Your task to perform on an android device: Go to notification settings Image 0: 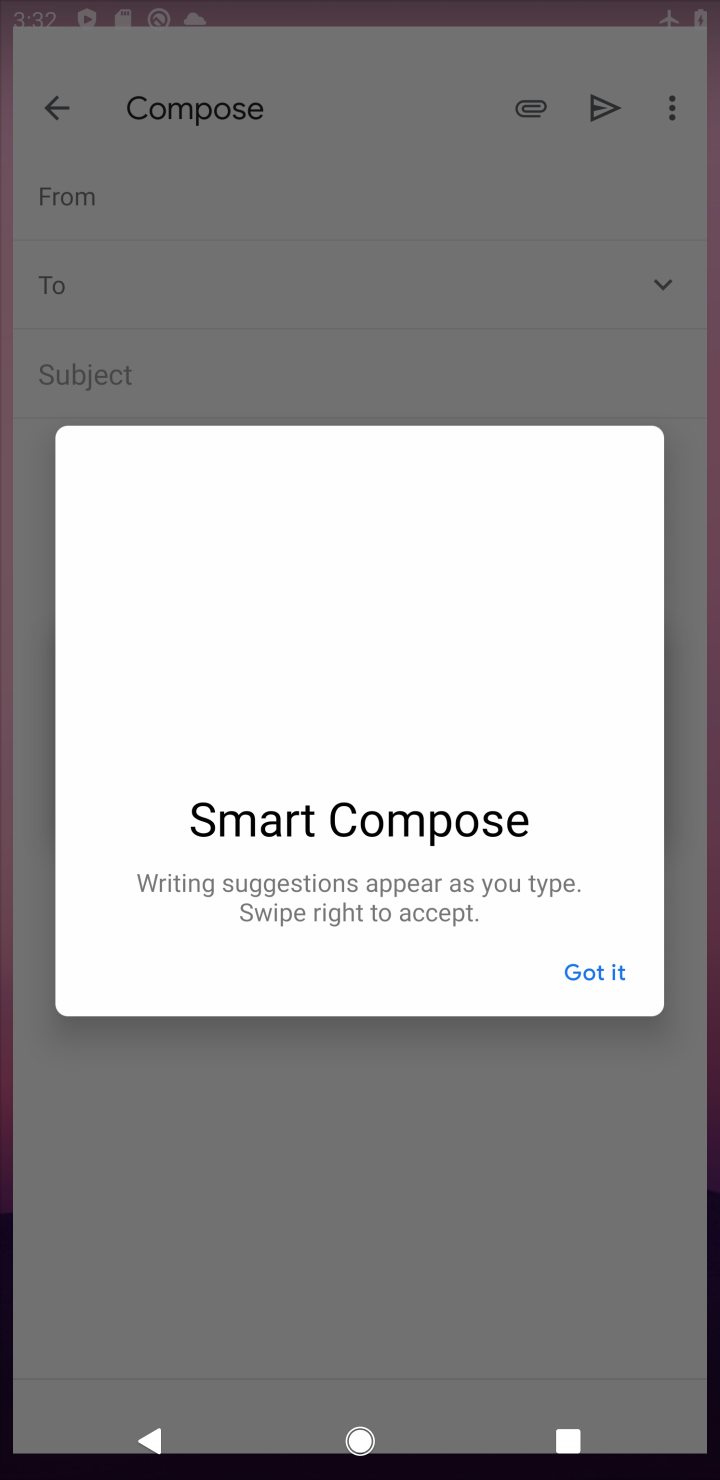
Step 0: press back button
Your task to perform on an android device: Go to notification settings Image 1: 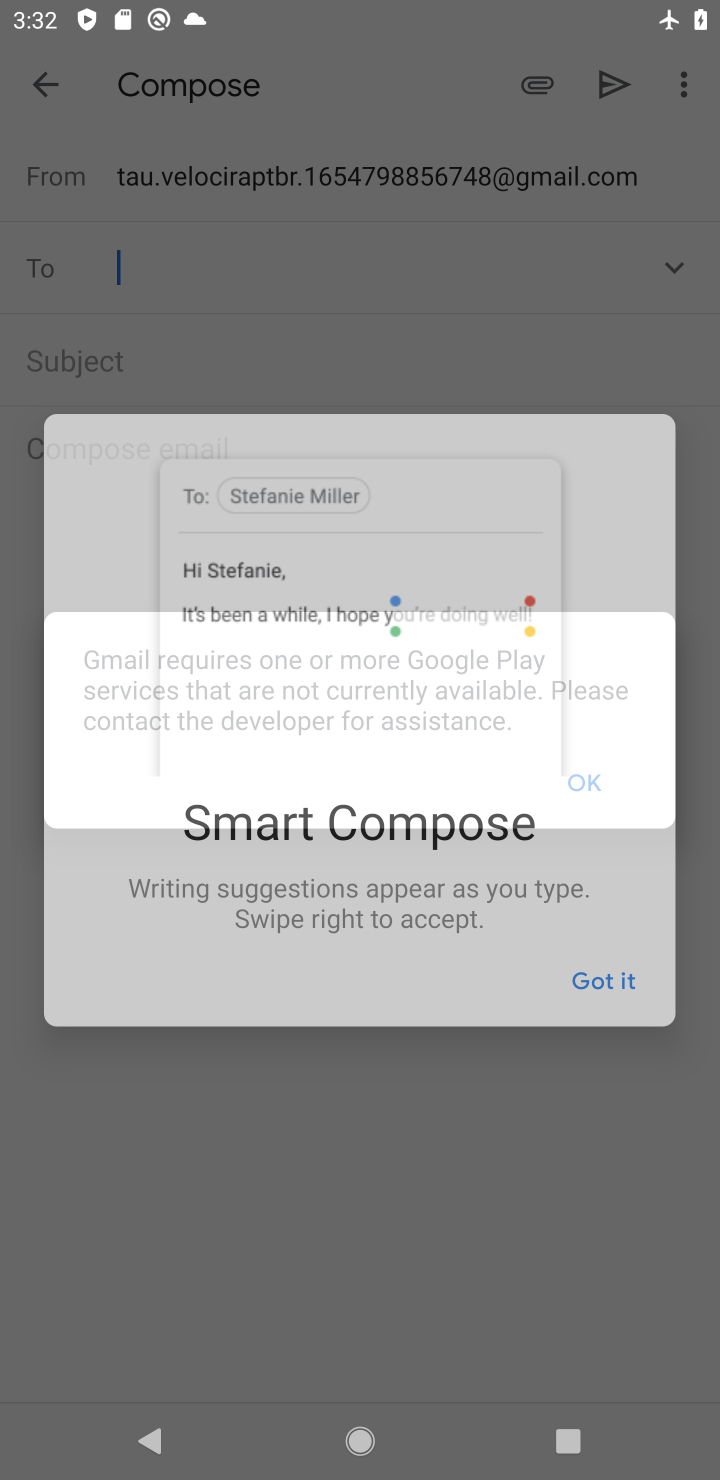
Step 1: press home button
Your task to perform on an android device: Go to notification settings Image 2: 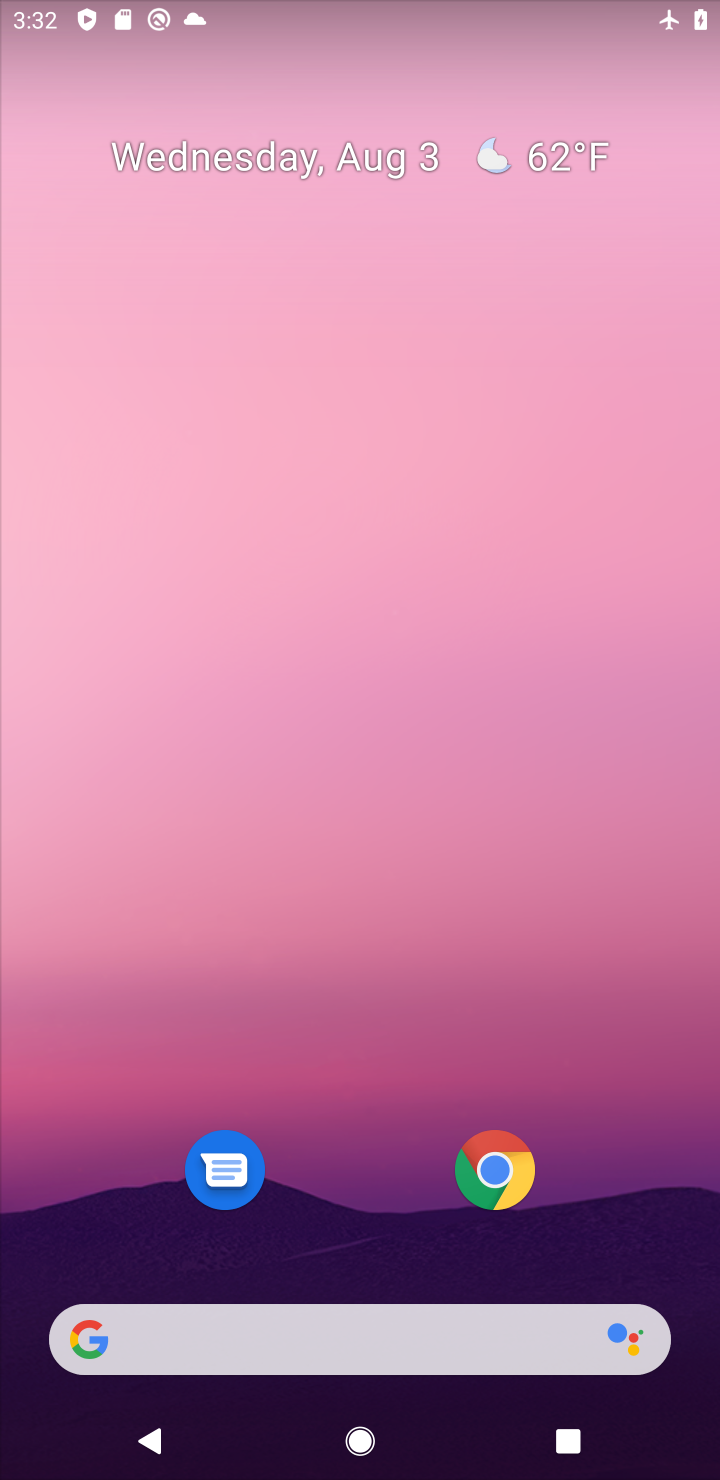
Step 2: click (376, 230)
Your task to perform on an android device: Go to notification settings Image 3: 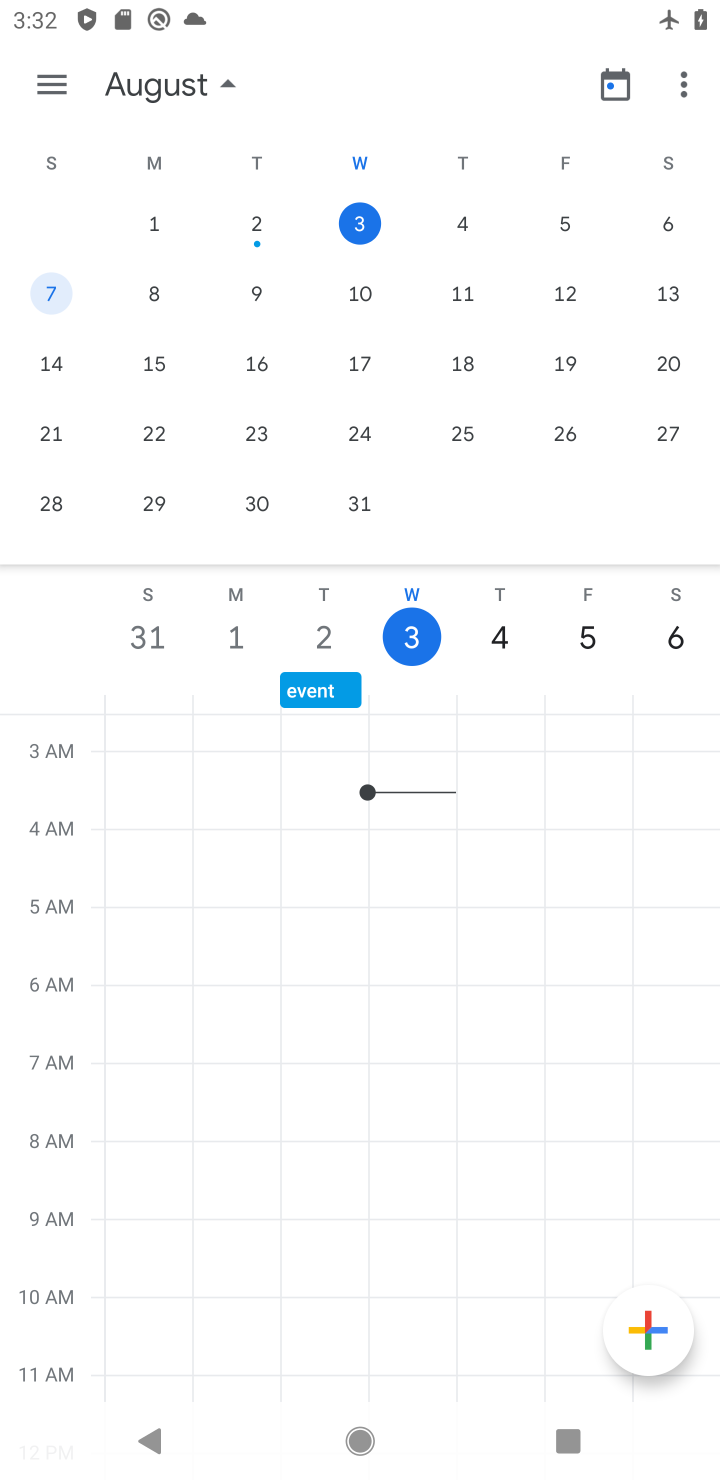
Step 3: press back button
Your task to perform on an android device: Go to notification settings Image 4: 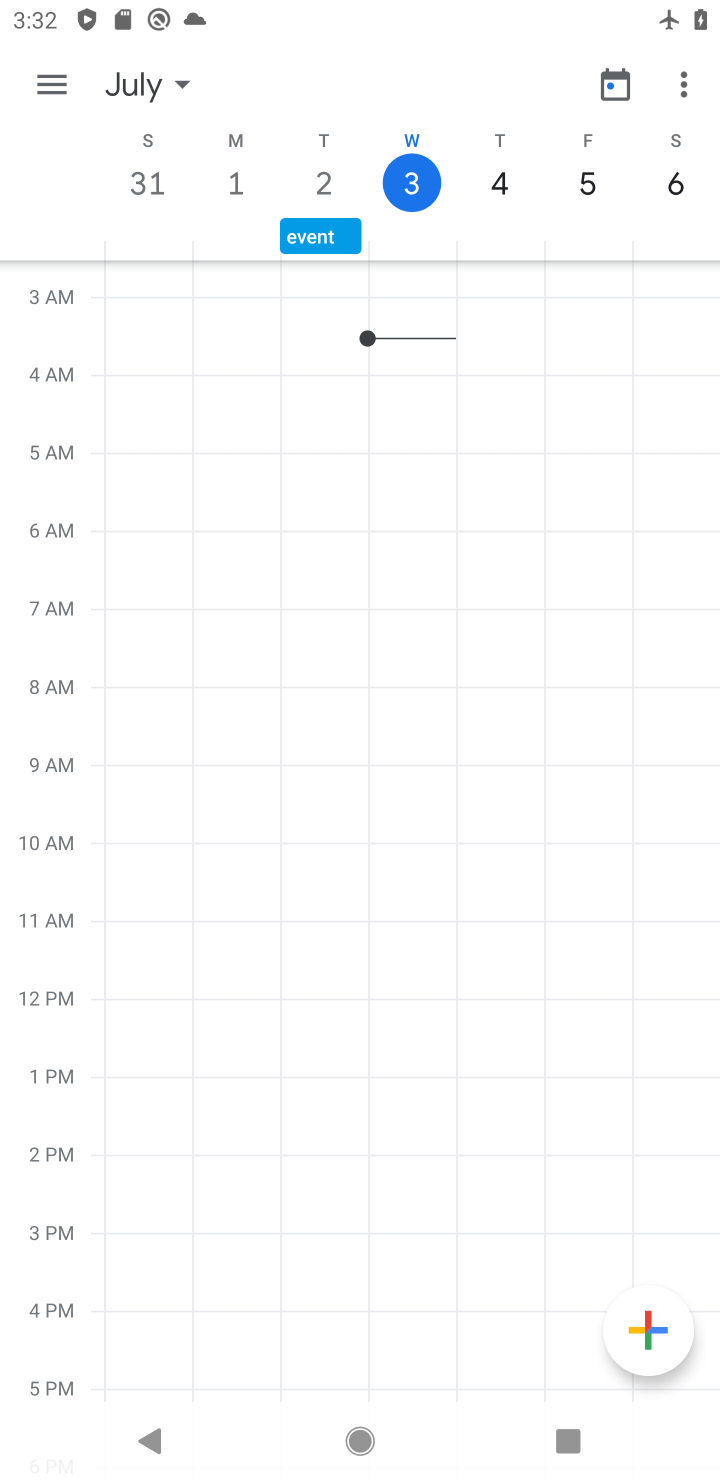
Step 4: press back button
Your task to perform on an android device: Go to notification settings Image 5: 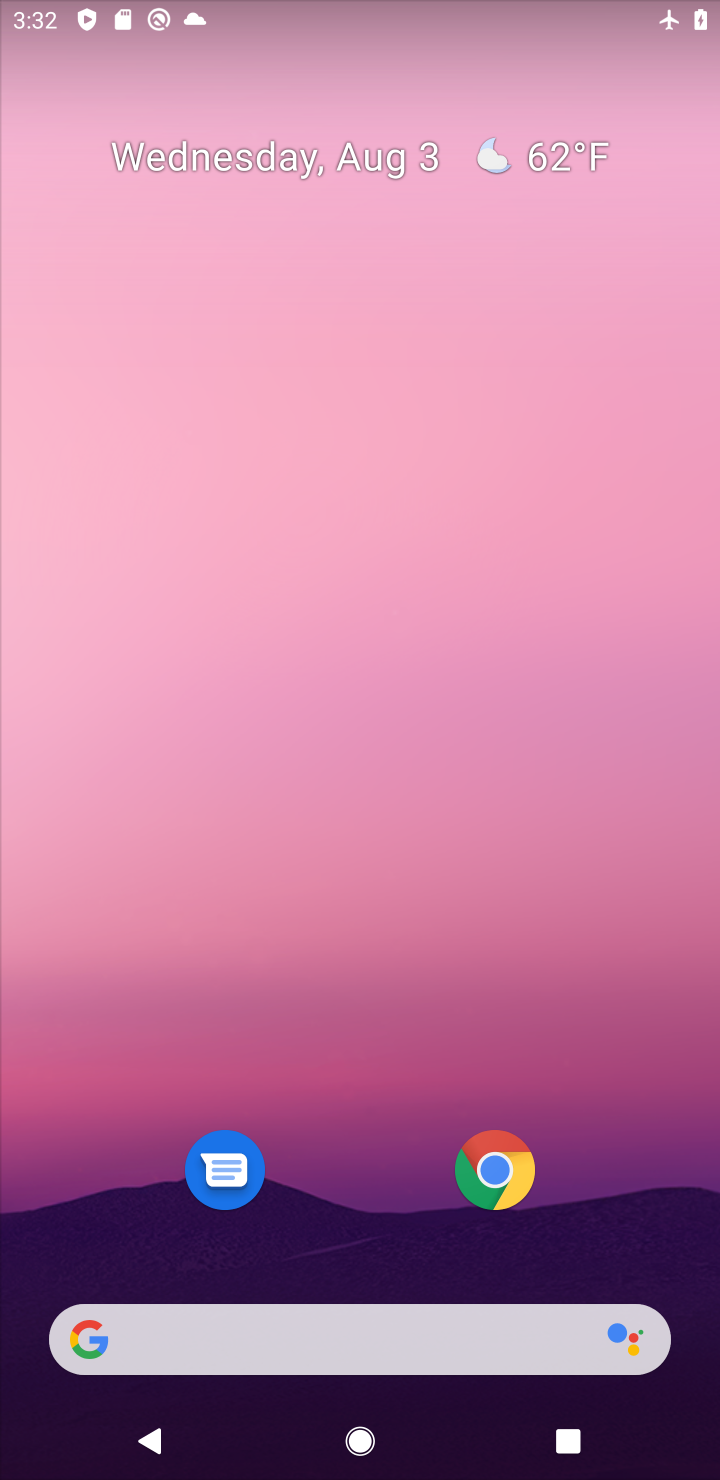
Step 5: drag from (334, 1132) to (287, 340)
Your task to perform on an android device: Go to notification settings Image 6: 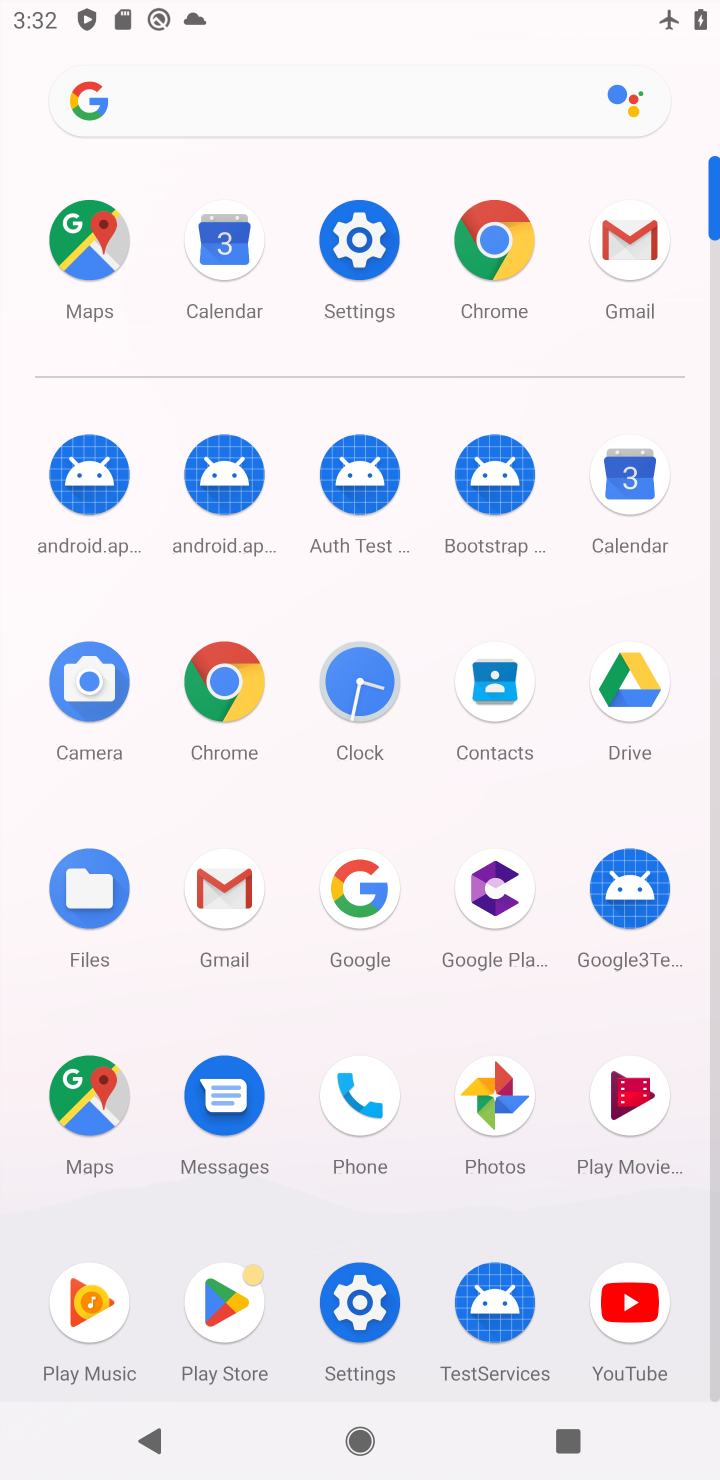
Step 6: click (364, 252)
Your task to perform on an android device: Go to notification settings Image 7: 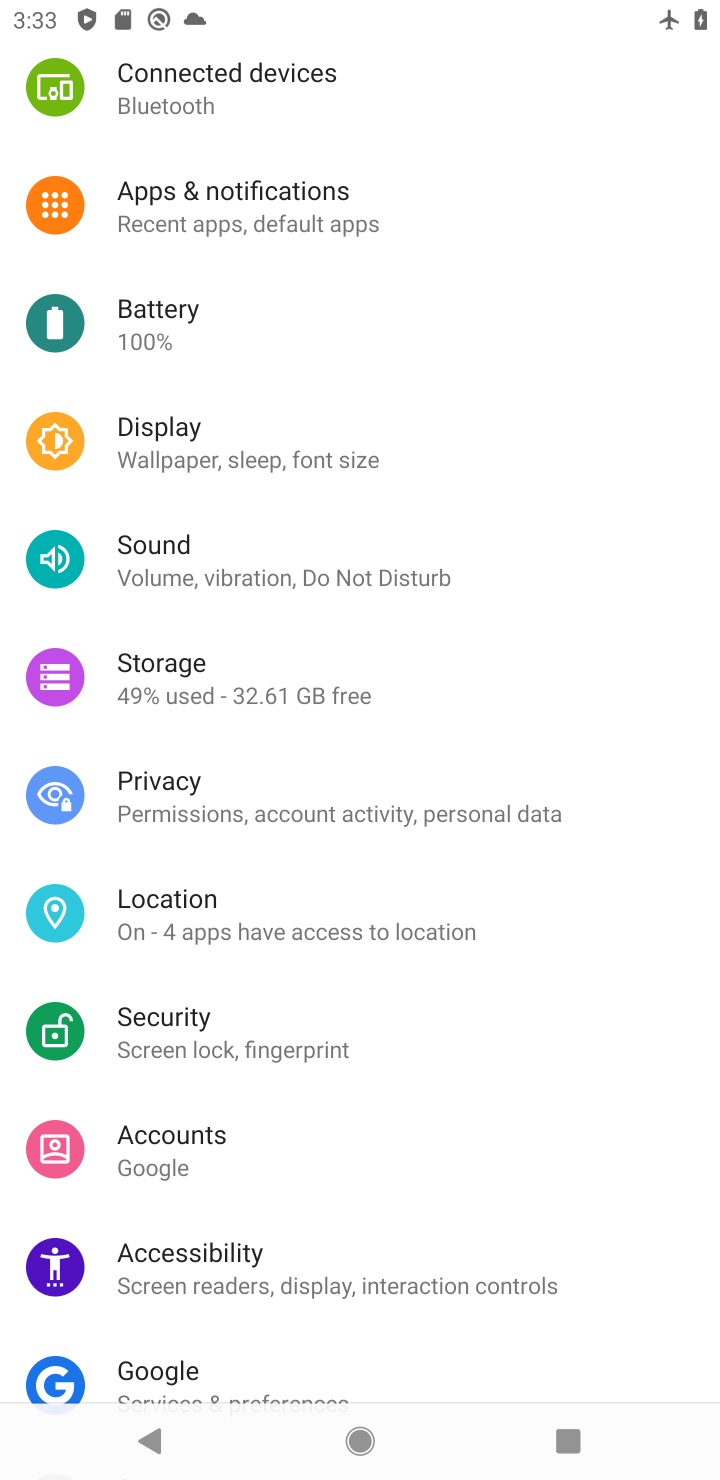
Step 7: click (291, 233)
Your task to perform on an android device: Go to notification settings Image 8: 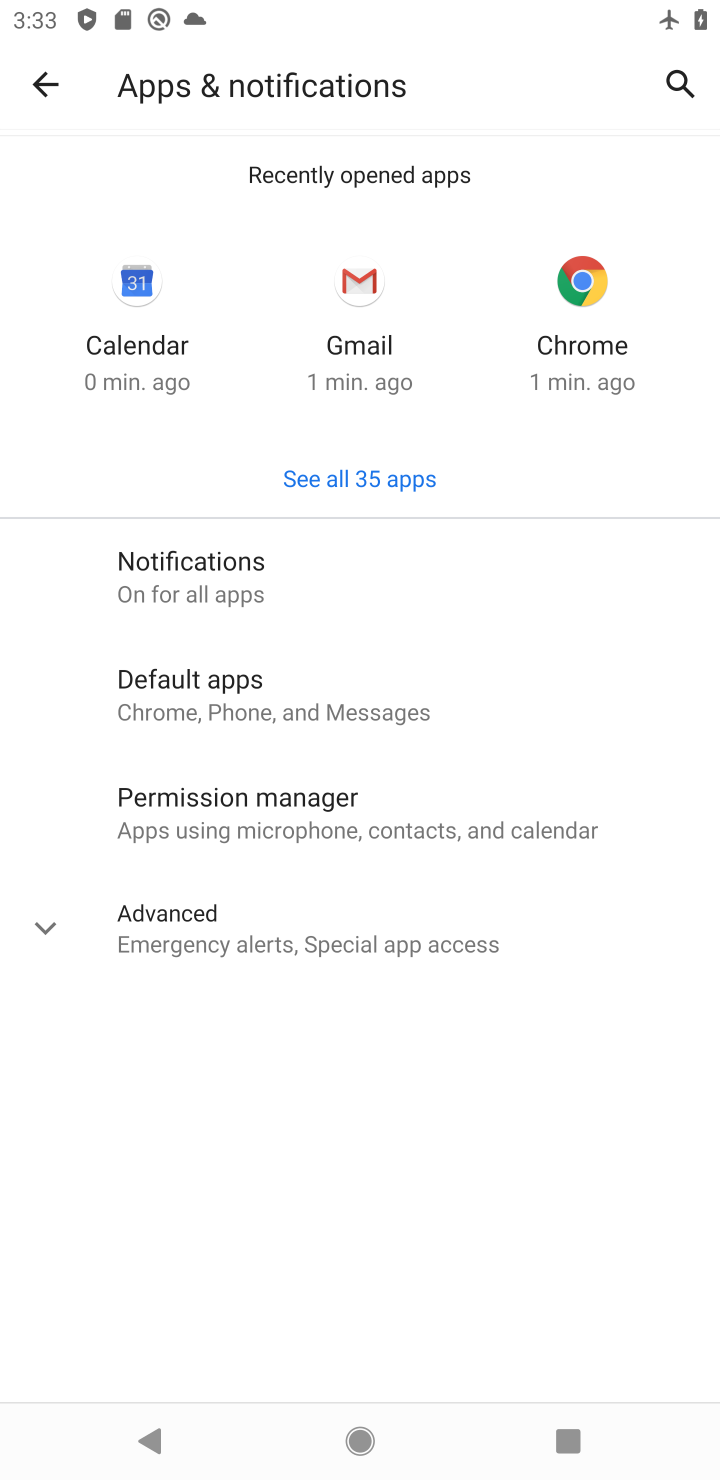
Step 8: click (187, 567)
Your task to perform on an android device: Go to notification settings Image 9: 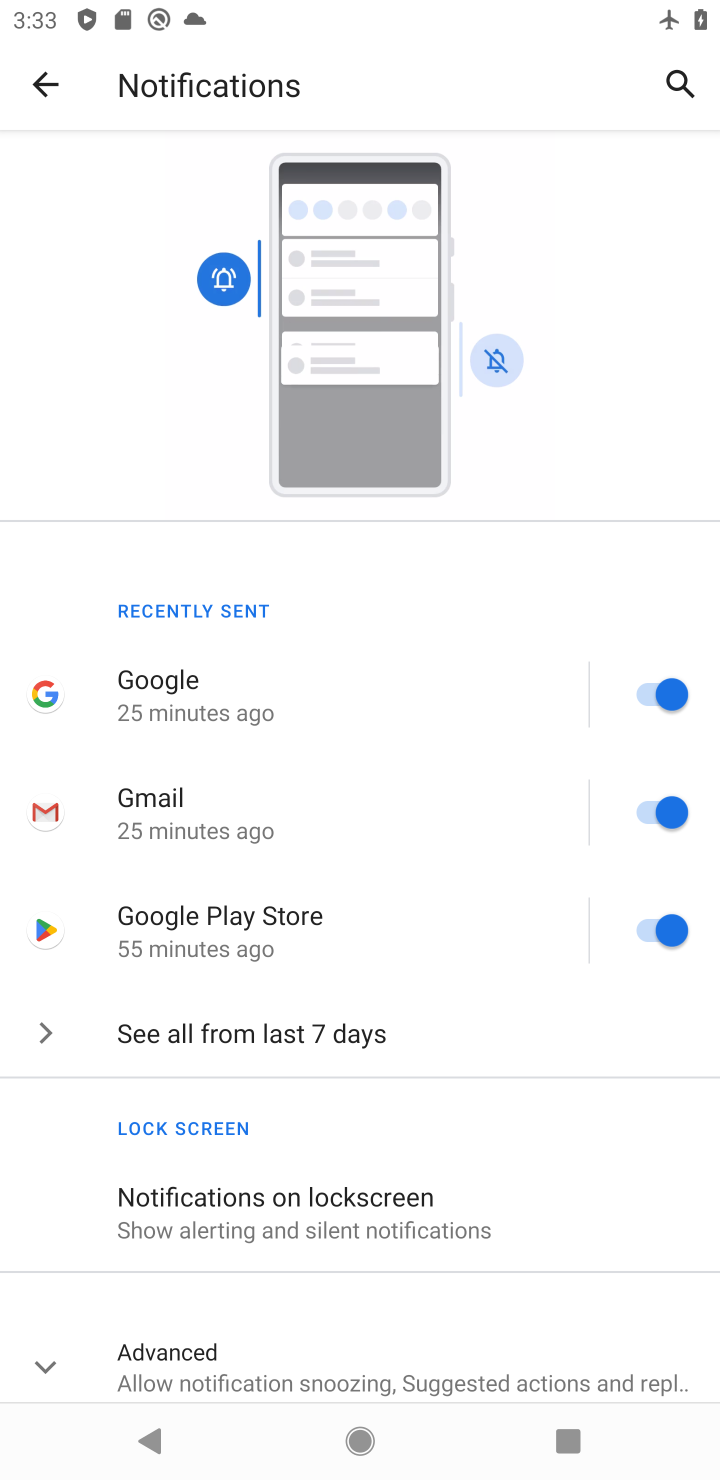
Step 9: task complete